Your task to perform on an android device: open app "Google Docs" Image 0: 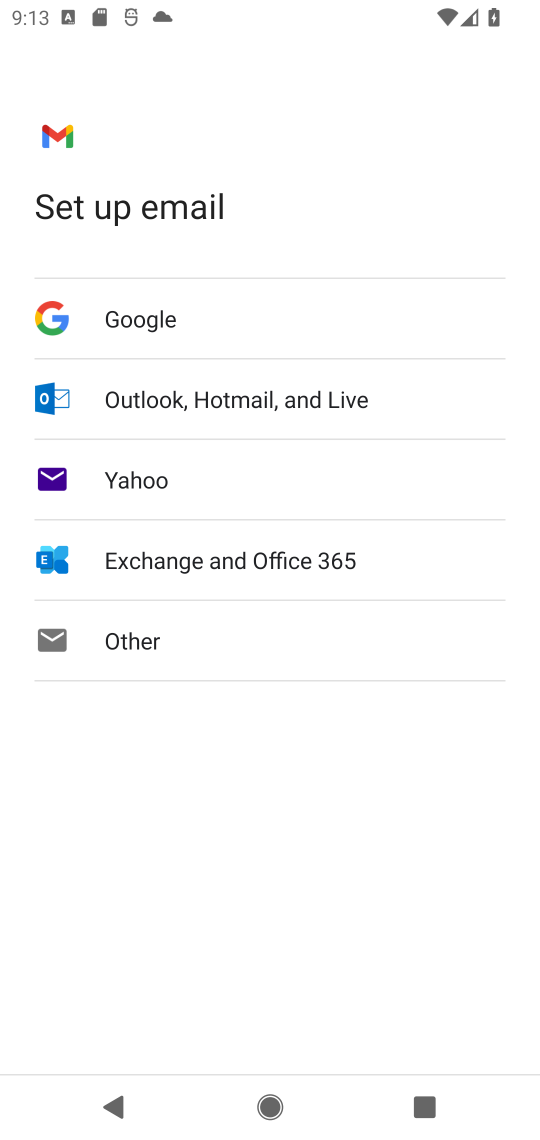
Step 0: press home button
Your task to perform on an android device: open app "Google Docs" Image 1: 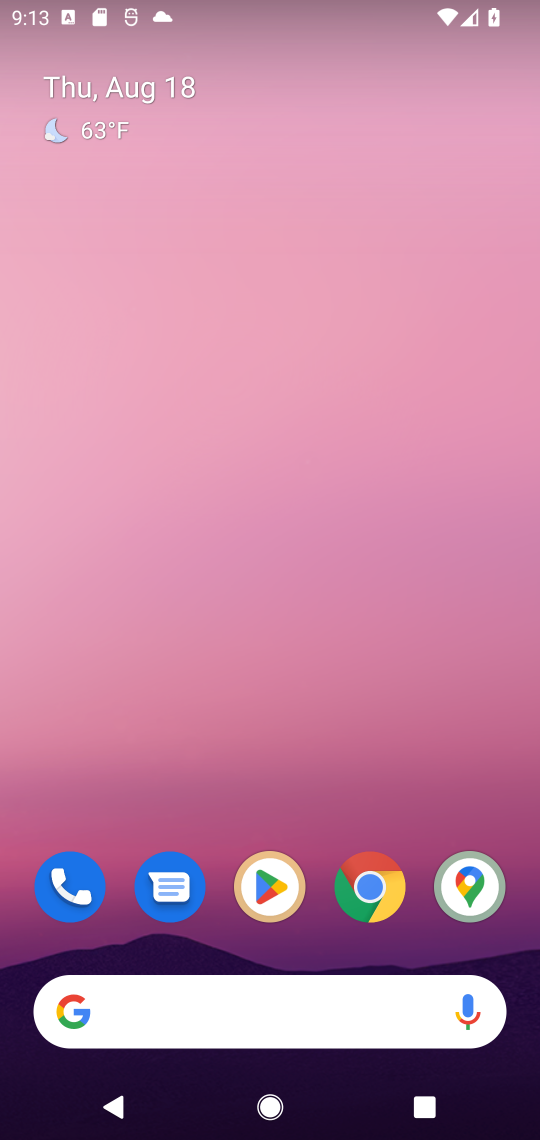
Step 1: click (264, 896)
Your task to perform on an android device: open app "Google Docs" Image 2: 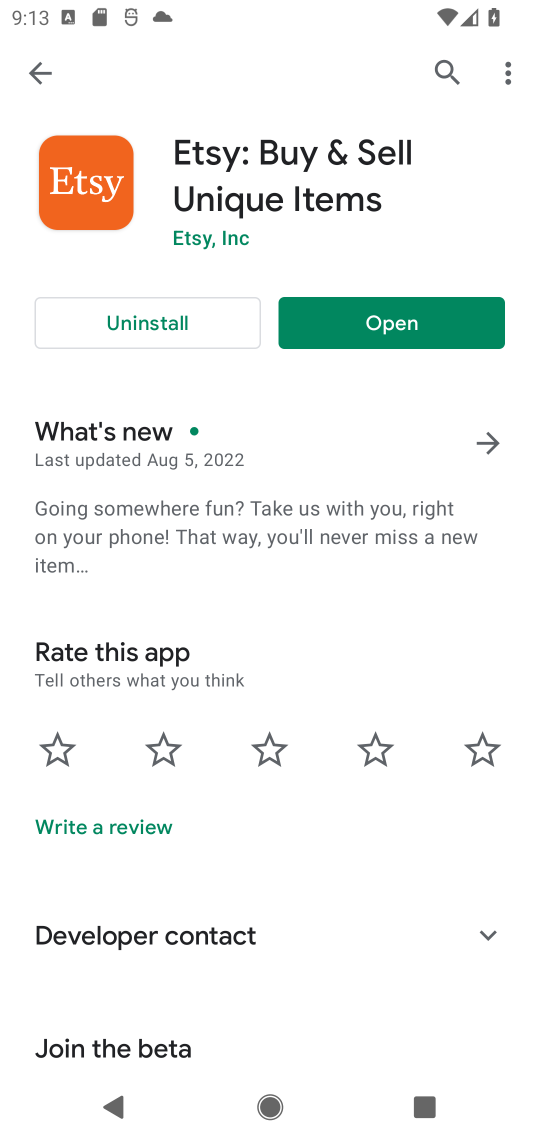
Step 2: click (441, 65)
Your task to perform on an android device: open app "Google Docs" Image 3: 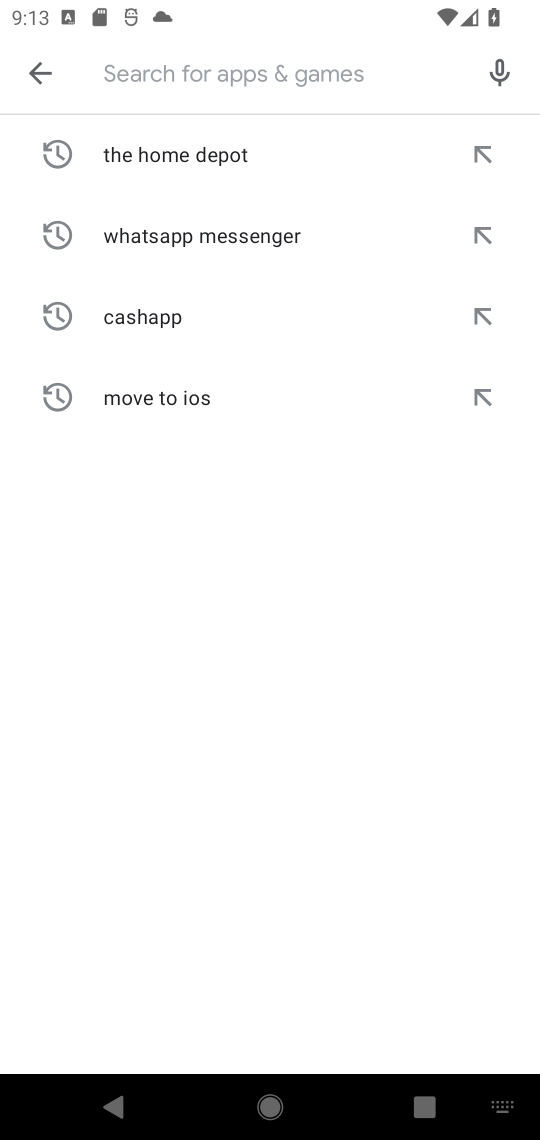
Step 3: type "Google Docs"
Your task to perform on an android device: open app "Google Docs" Image 4: 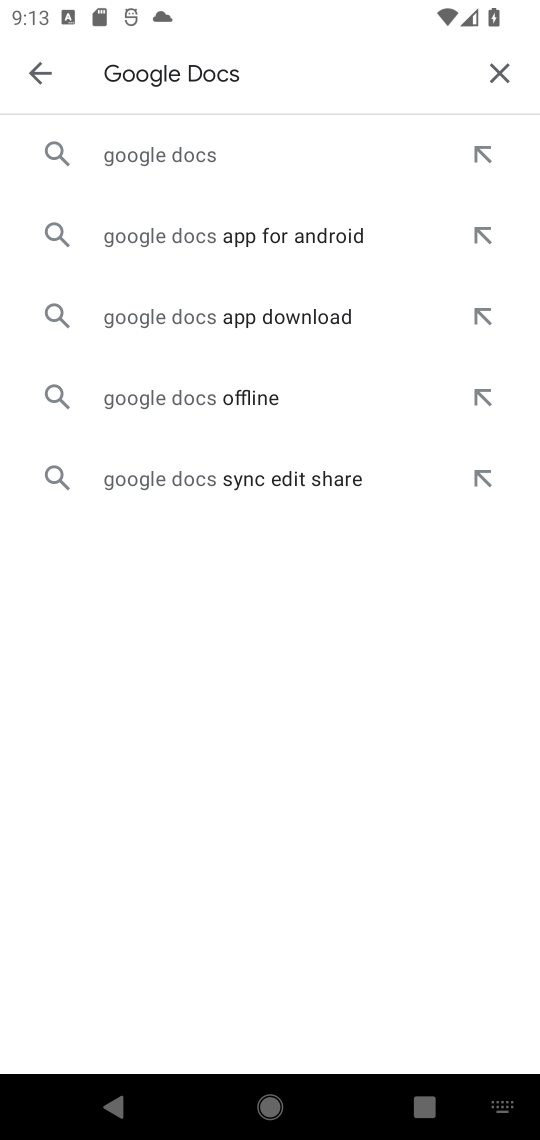
Step 4: click (190, 156)
Your task to perform on an android device: open app "Google Docs" Image 5: 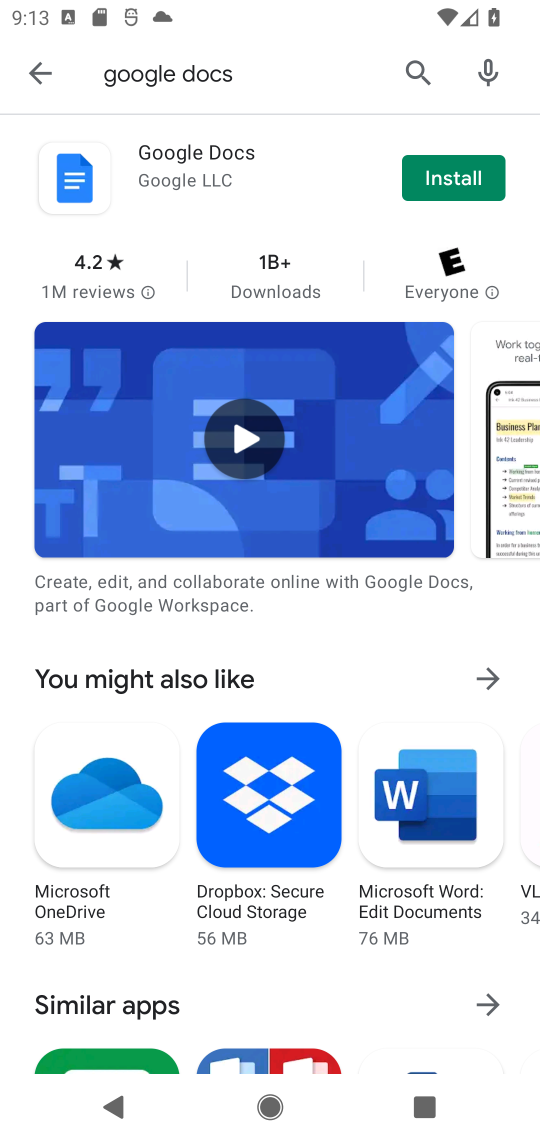
Step 5: task complete